Your task to perform on an android device: Turn on the flashlight Image 0: 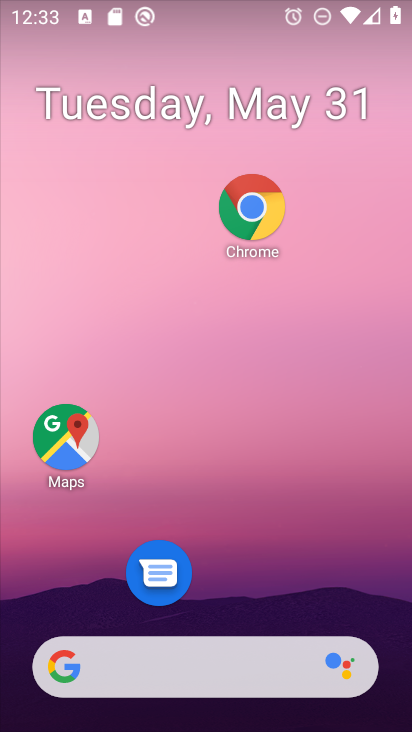
Step 0: drag from (295, 572) to (214, 725)
Your task to perform on an android device: Turn on the flashlight Image 1: 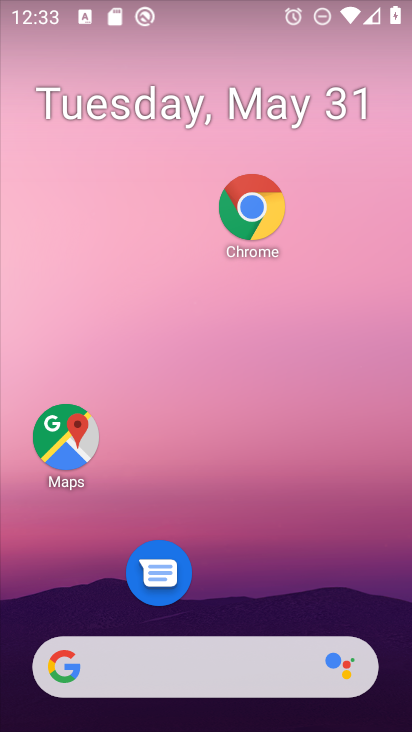
Step 1: task complete